Your task to perform on an android device: open app "Fetch Rewards" Image 0: 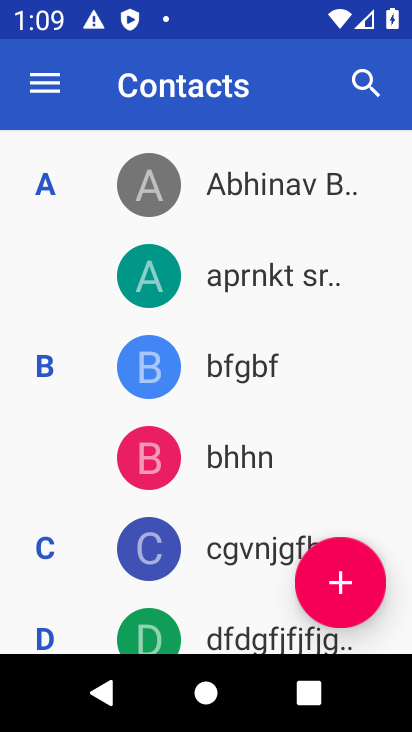
Step 0: press home button
Your task to perform on an android device: open app "Fetch Rewards" Image 1: 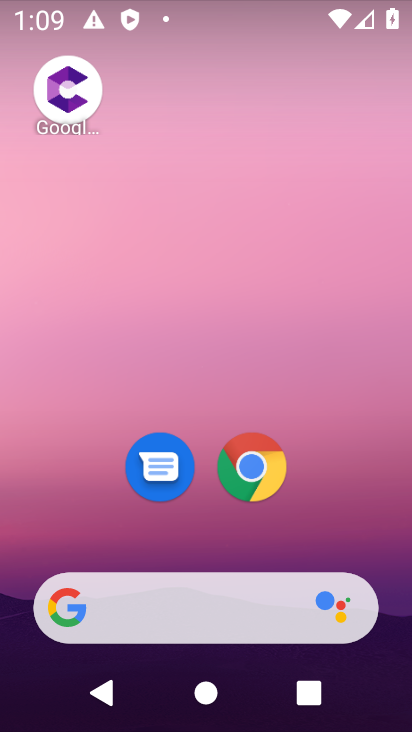
Step 1: drag from (347, 538) to (241, 216)
Your task to perform on an android device: open app "Fetch Rewards" Image 2: 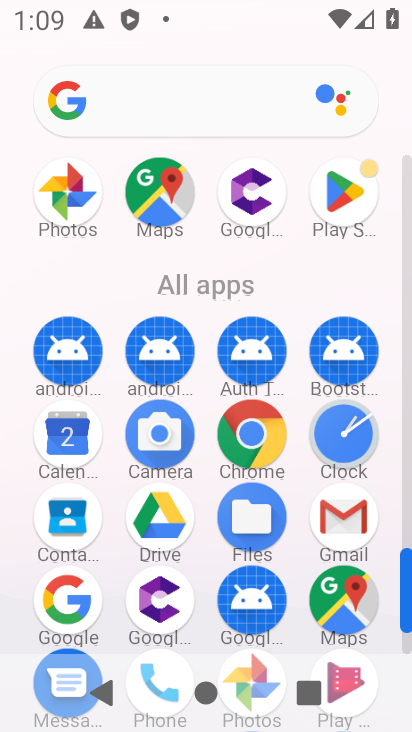
Step 2: click (353, 204)
Your task to perform on an android device: open app "Fetch Rewards" Image 3: 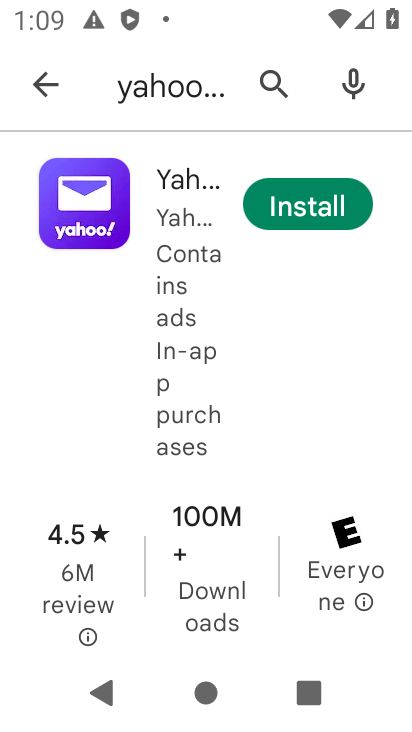
Step 3: click (277, 76)
Your task to perform on an android device: open app "Fetch Rewards" Image 4: 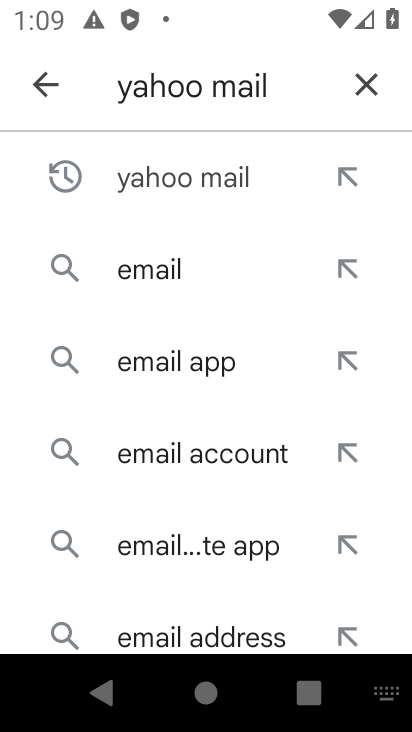
Step 4: click (362, 77)
Your task to perform on an android device: open app "Fetch Rewards" Image 5: 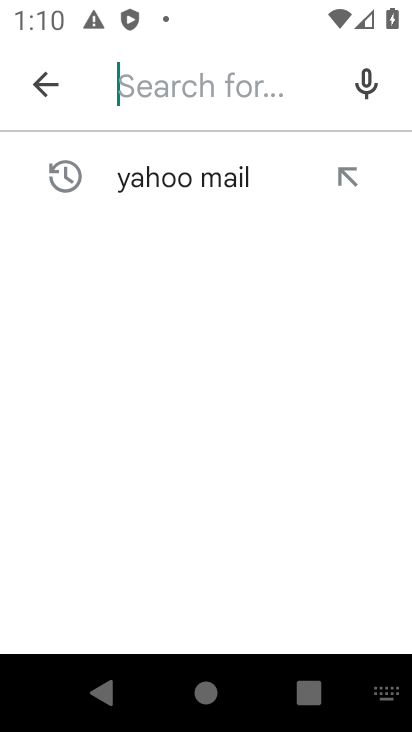
Step 5: type "fetch rewards"
Your task to perform on an android device: open app "Fetch Rewards" Image 6: 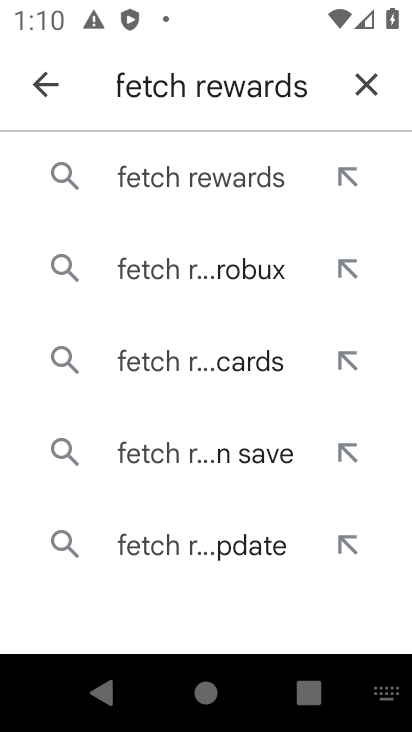
Step 6: click (164, 192)
Your task to perform on an android device: open app "Fetch Rewards" Image 7: 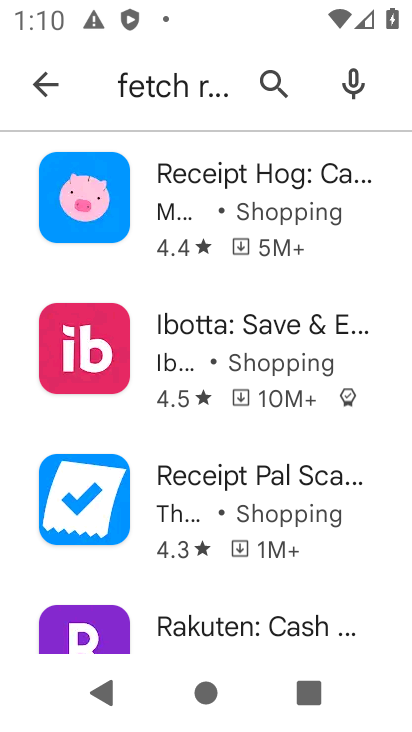
Step 7: task complete